Your task to perform on an android device: check android version Image 0: 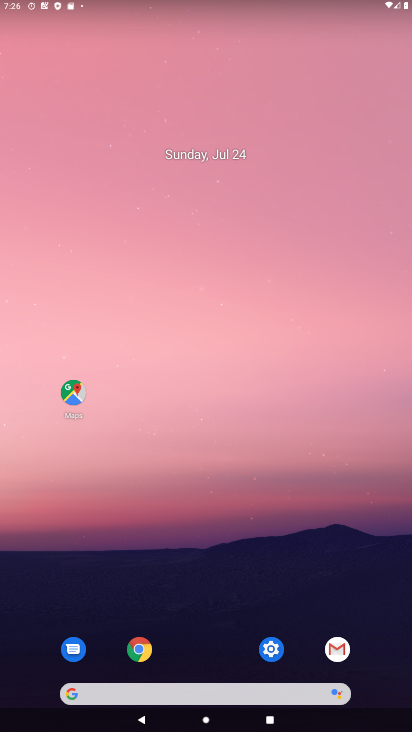
Step 0: click (274, 651)
Your task to perform on an android device: check android version Image 1: 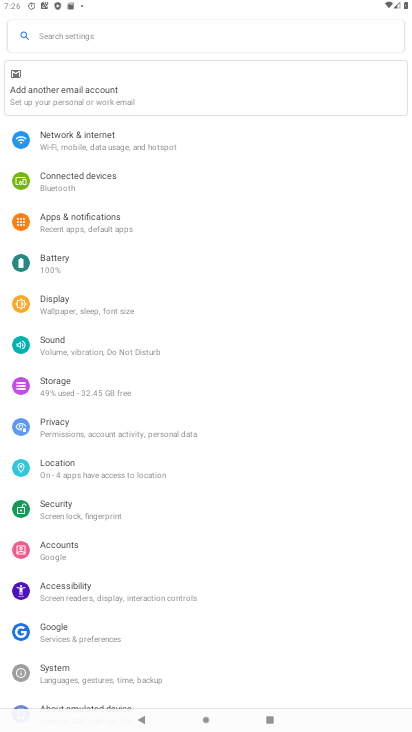
Step 1: click (76, 27)
Your task to perform on an android device: check android version Image 2: 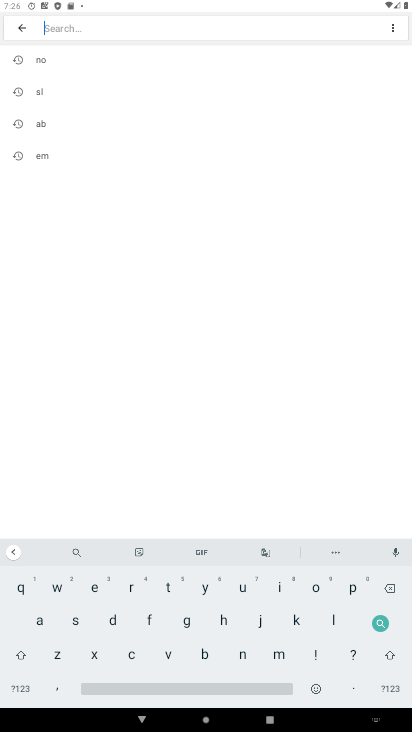
Step 2: click (32, 623)
Your task to perform on an android device: check android version Image 3: 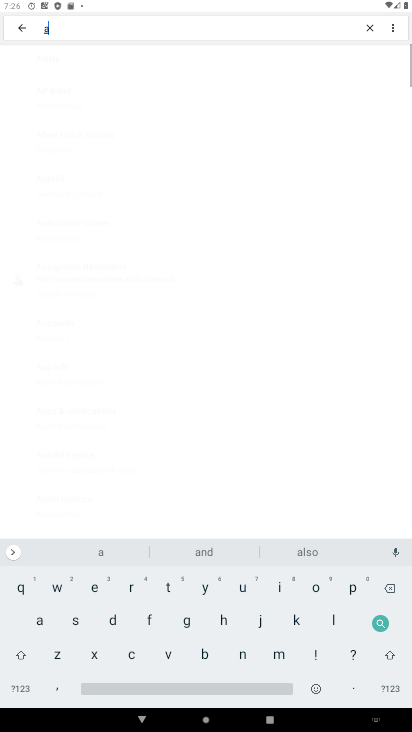
Step 3: click (241, 649)
Your task to perform on an android device: check android version Image 4: 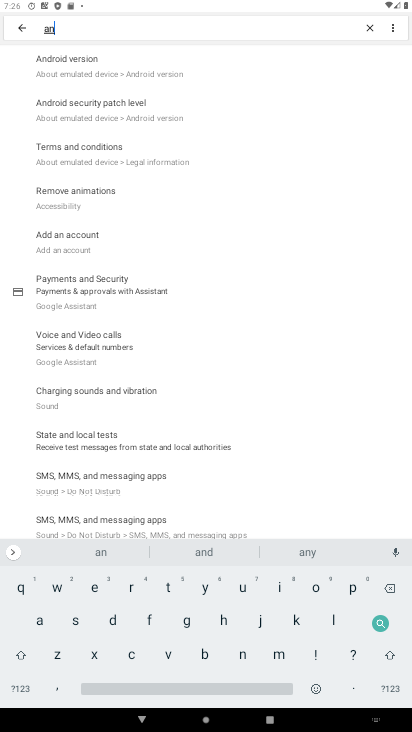
Step 4: click (95, 68)
Your task to perform on an android device: check android version Image 5: 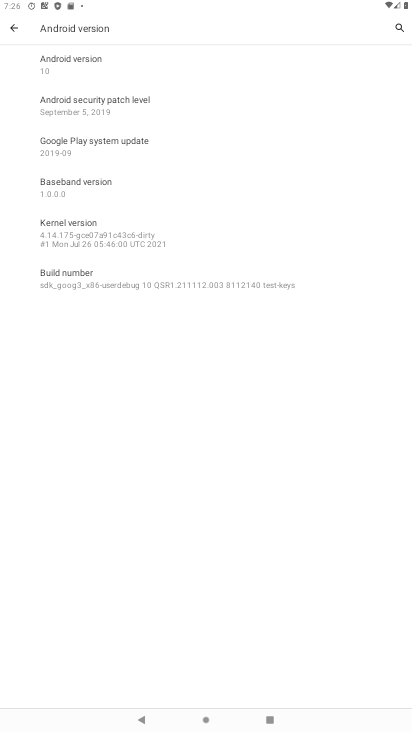
Step 5: click (96, 64)
Your task to perform on an android device: check android version Image 6: 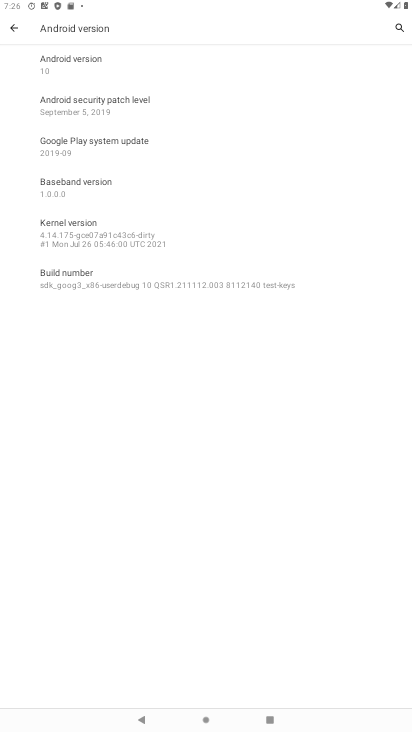
Step 6: task complete